Your task to perform on an android device: turn off location Image 0: 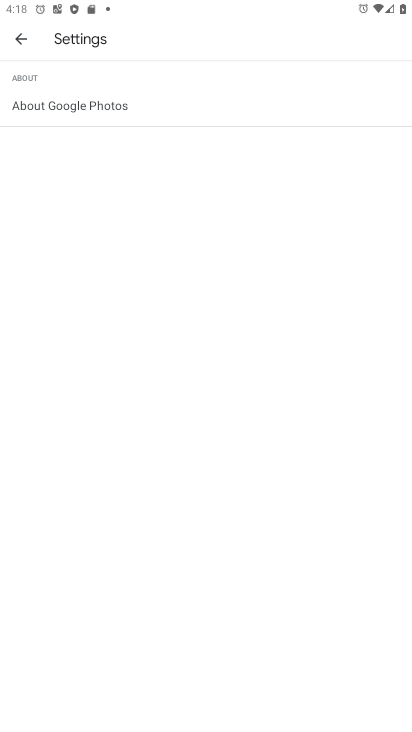
Step 0: press home button
Your task to perform on an android device: turn off location Image 1: 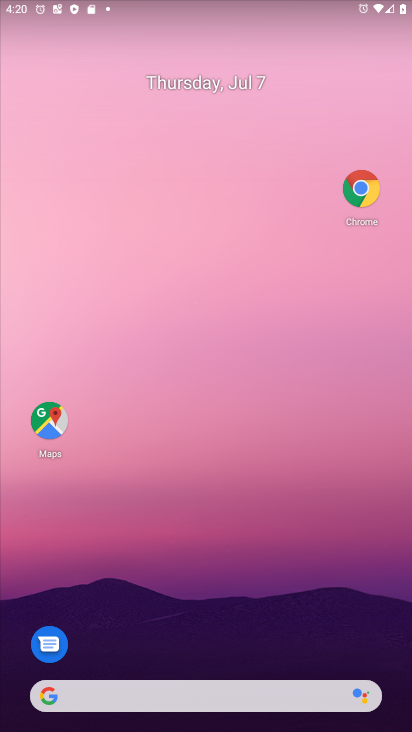
Step 1: drag from (341, 578) to (165, 168)
Your task to perform on an android device: turn off location Image 2: 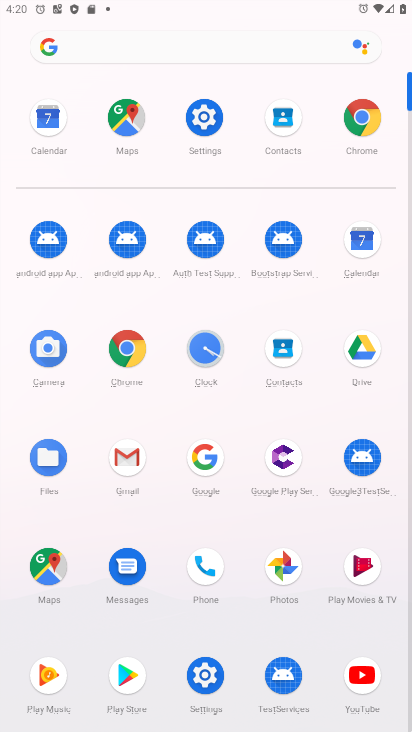
Step 2: click (229, 138)
Your task to perform on an android device: turn off location Image 3: 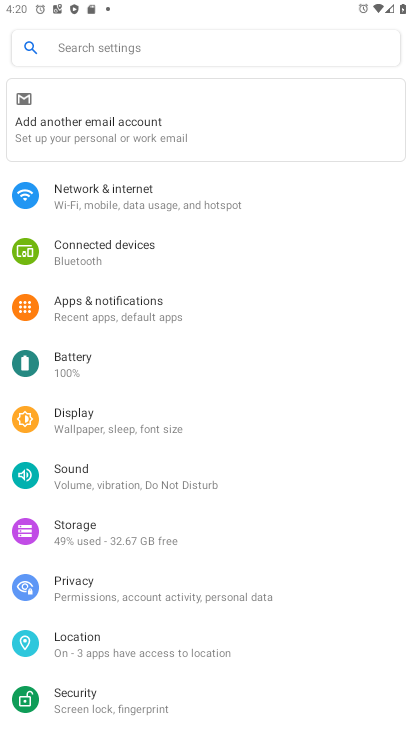
Step 3: click (120, 638)
Your task to perform on an android device: turn off location Image 4: 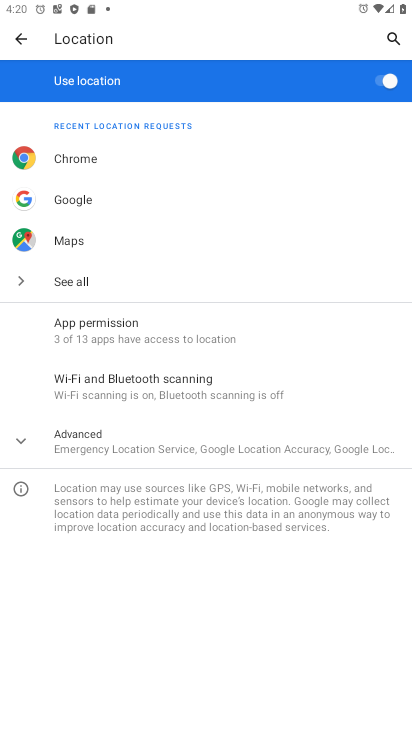
Step 4: click (273, 76)
Your task to perform on an android device: turn off location Image 5: 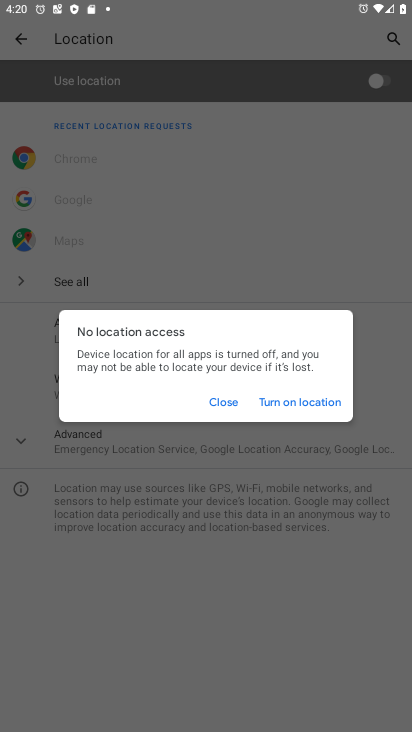
Step 5: click (213, 399)
Your task to perform on an android device: turn off location Image 6: 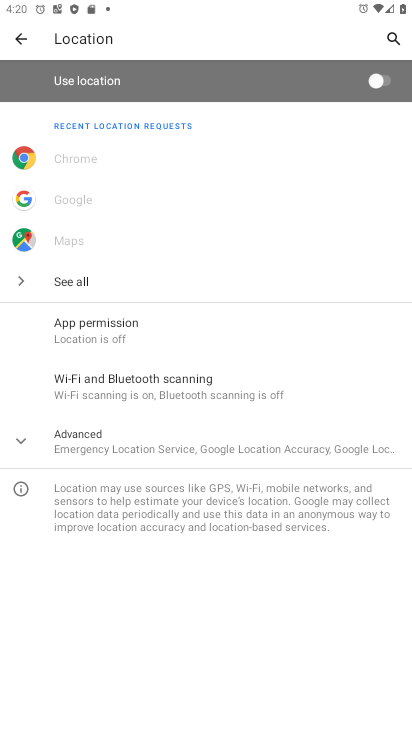
Step 6: task complete